Your task to perform on an android device: set default search engine in the chrome app Image 0: 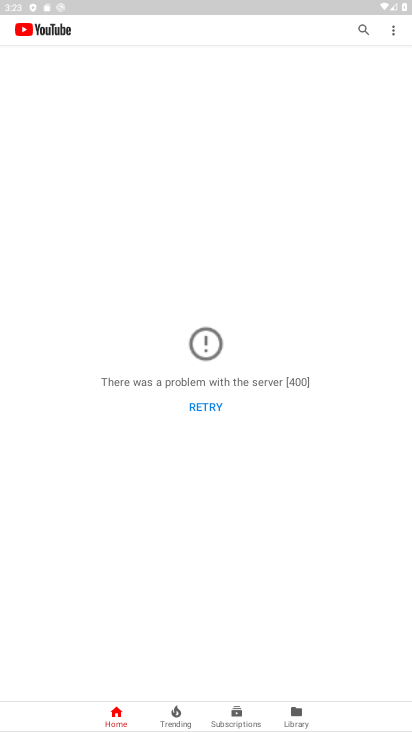
Step 0: press back button
Your task to perform on an android device: set default search engine in the chrome app Image 1: 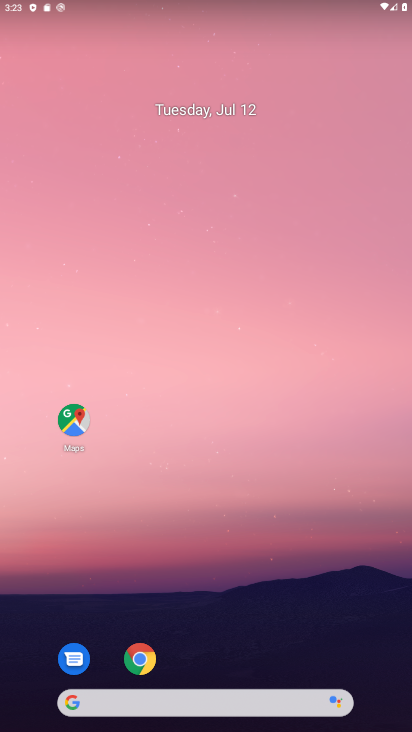
Step 1: click (203, 662)
Your task to perform on an android device: set default search engine in the chrome app Image 2: 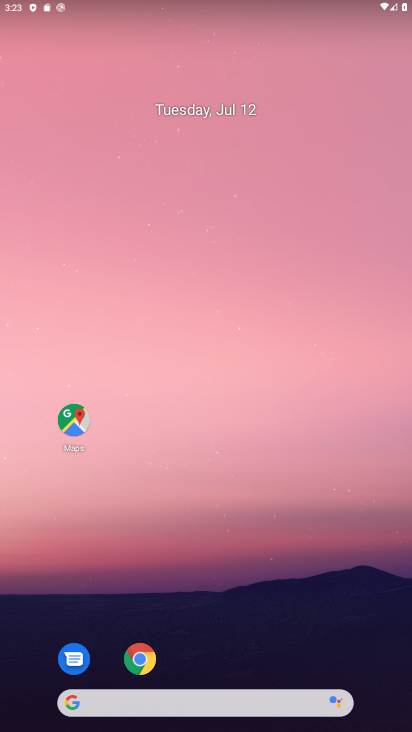
Step 2: click (142, 660)
Your task to perform on an android device: set default search engine in the chrome app Image 3: 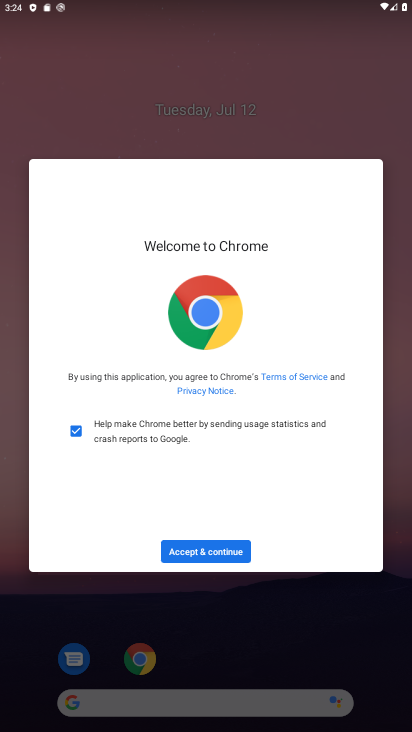
Step 3: click (190, 545)
Your task to perform on an android device: set default search engine in the chrome app Image 4: 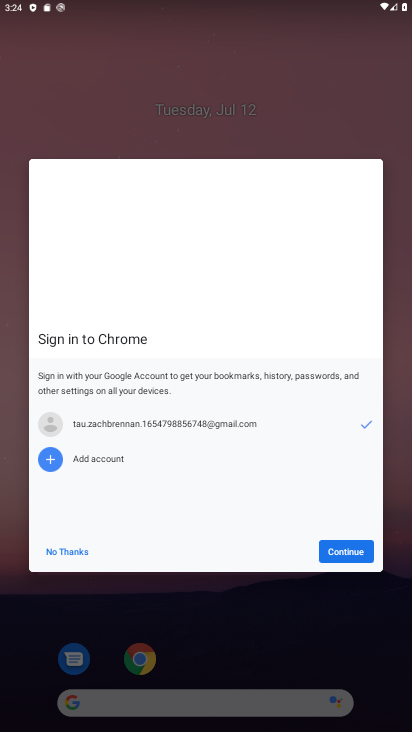
Step 4: click (335, 545)
Your task to perform on an android device: set default search engine in the chrome app Image 5: 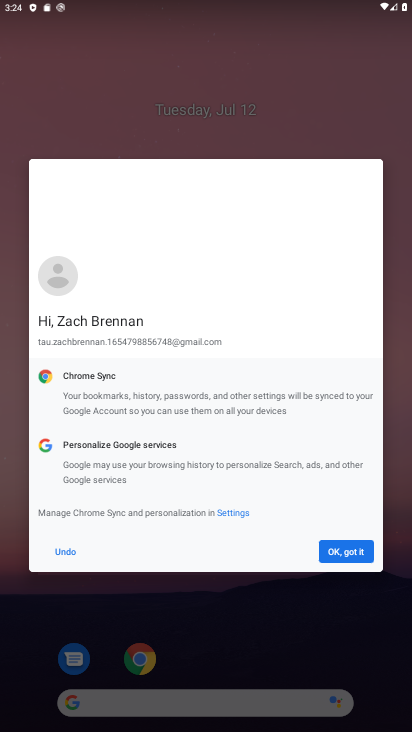
Step 5: click (335, 545)
Your task to perform on an android device: set default search engine in the chrome app Image 6: 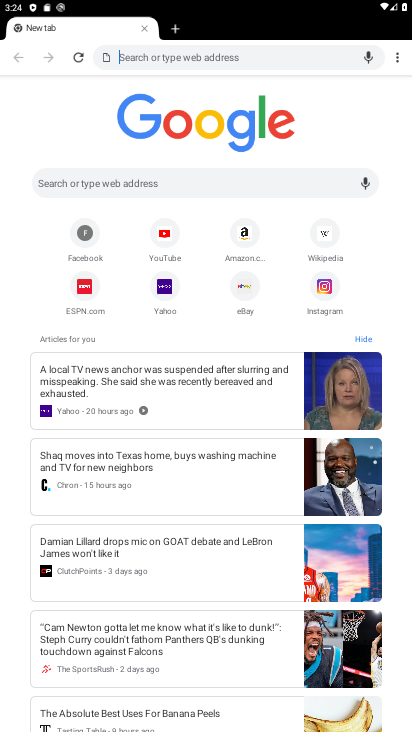
Step 6: click (394, 58)
Your task to perform on an android device: set default search engine in the chrome app Image 7: 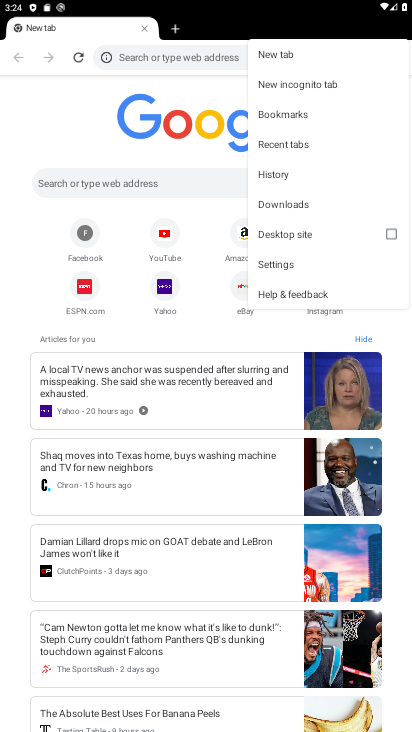
Step 7: click (299, 265)
Your task to perform on an android device: set default search engine in the chrome app Image 8: 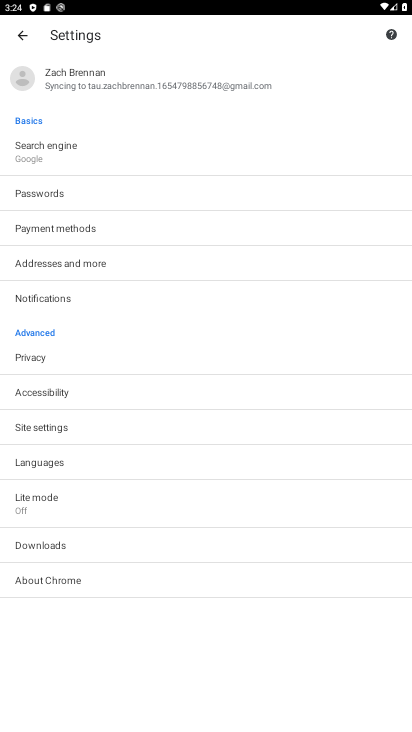
Step 8: click (50, 151)
Your task to perform on an android device: set default search engine in the chrome app Image 9: 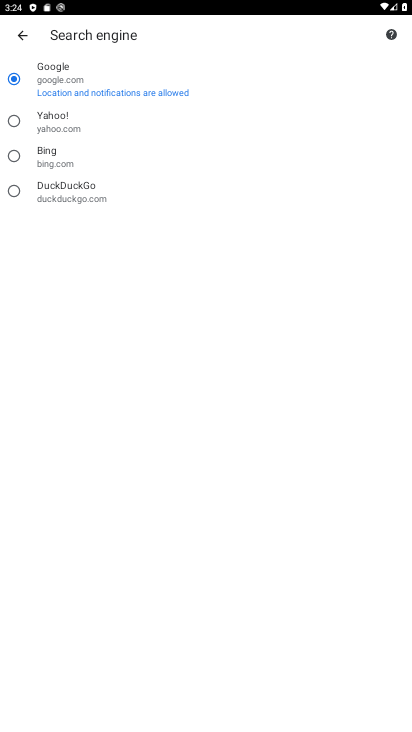
Step 9: click (10, 125)
Your task to perform on an android device: set default search engine in the chrome app Image 10: 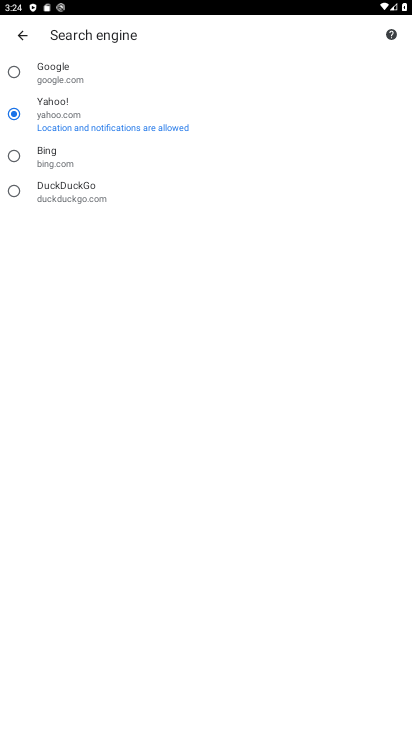
Step 10: task complete